Your task to perform on an android device: Show me popular videos on Youtube Image 0: 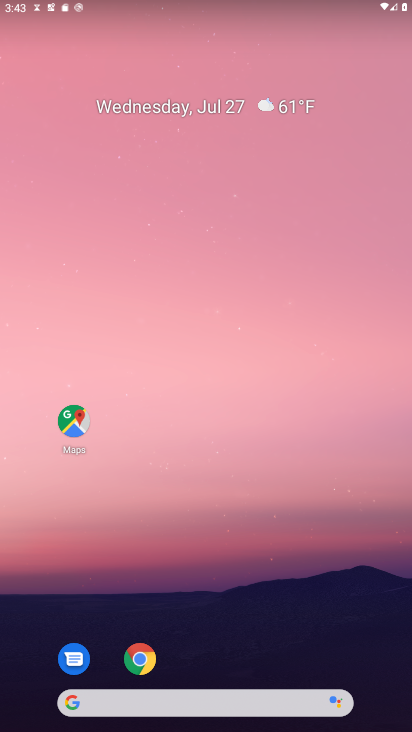
Step 0: drag from (232, 707) to (165, 162)
Your task to perform on an android device: Show me popular videos on Youtube Image 1: 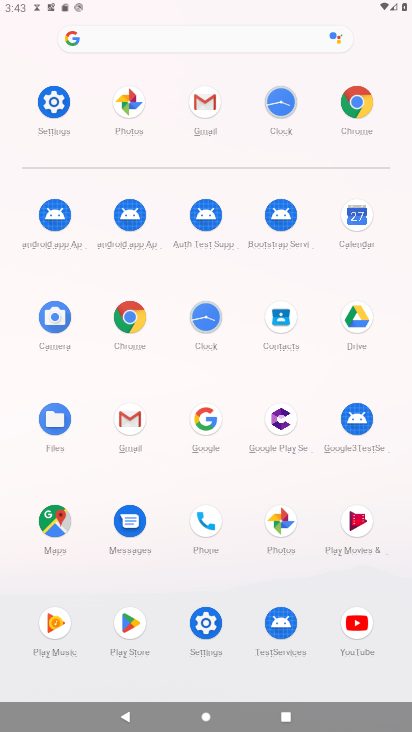
Step 1: click (355, 600)
Your task to perform on an android device: Show me popular videos on Youtube Image 2: 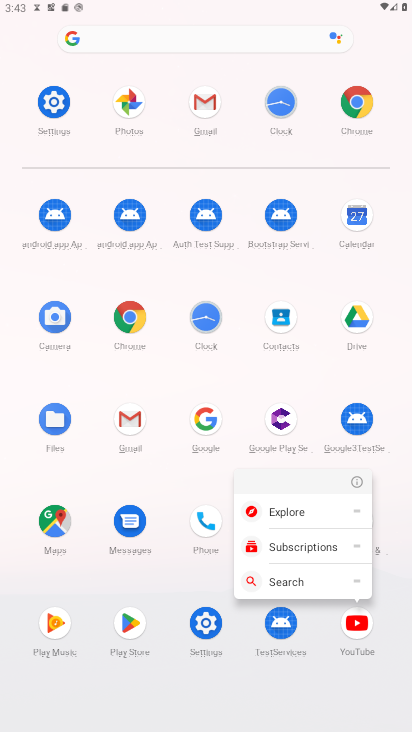
Step 2: click (352, 622)
Your task to perform on an android device: Show me popular videos on Youtube Image 3: 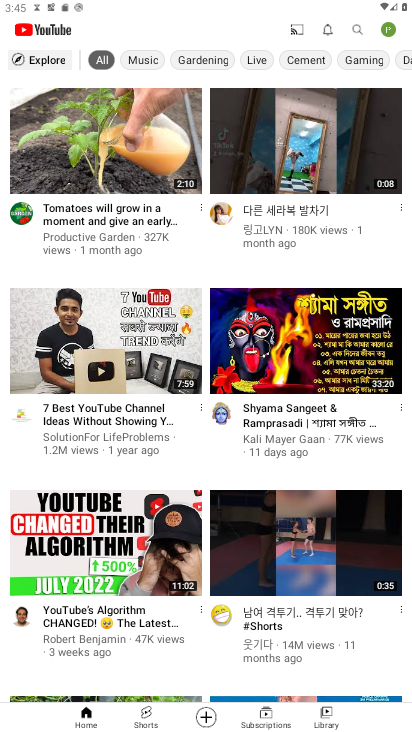
Step 3: click (35, 58)
Your task to perform on an android device: Show me popular videos on Youtube Image 4: 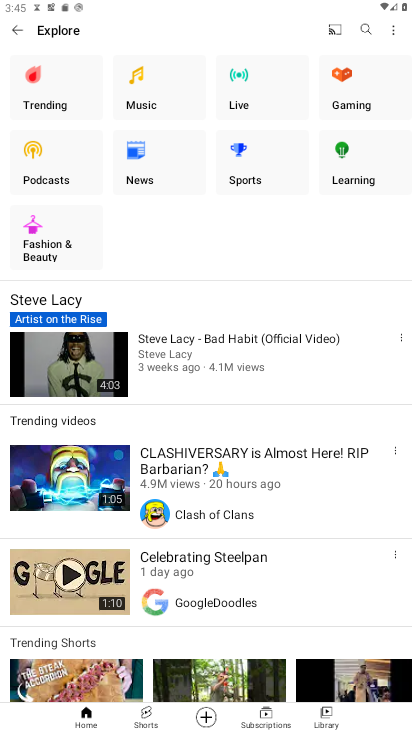
Step 4: click (74, 97)
Your task to perform on an android device: Show me popular videos on Youtube Image 5: 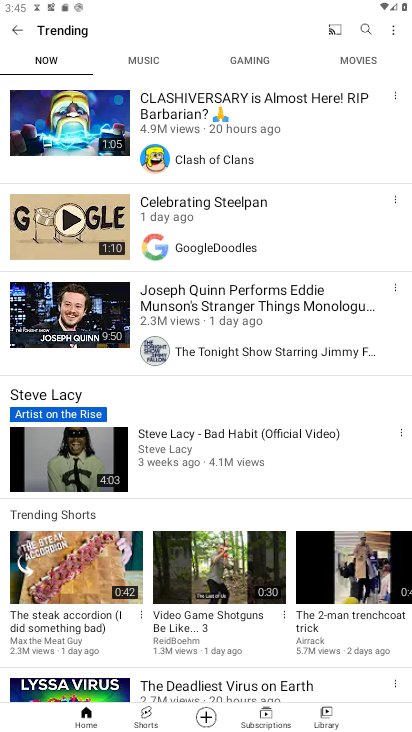
Step 5: task complete